Your task to perform on an android device: turn on priority inbox in the gmail app Image 0: 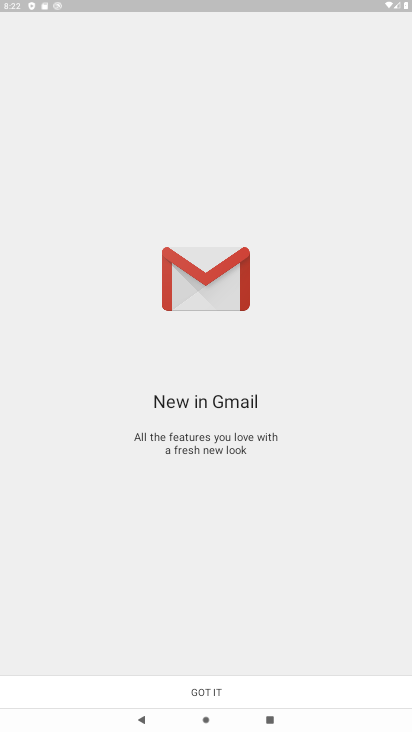
Step 0: press home button
Your task to perform on an android device: turn on priority inbox in the gmail app Image 1: 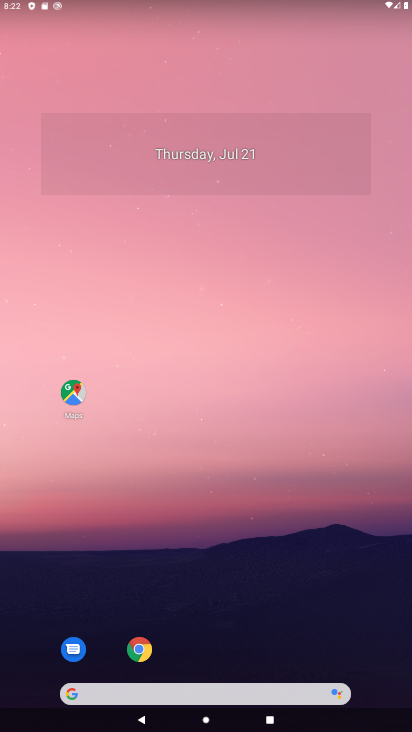
Step 1: drag from (214, 655) to (267, 126)
Your task to perform on an android device: turn on priority inbox in the gmail app Image 2: 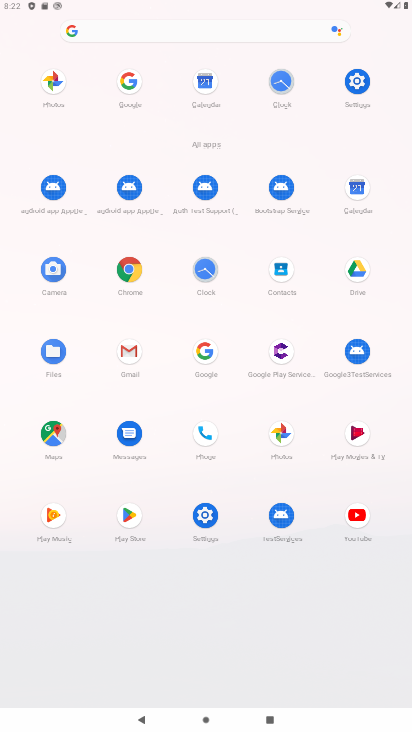
Step 2: click (126, 351)
Your task to perform on an android device: turn on priority inbox in the gmail app Image 3: 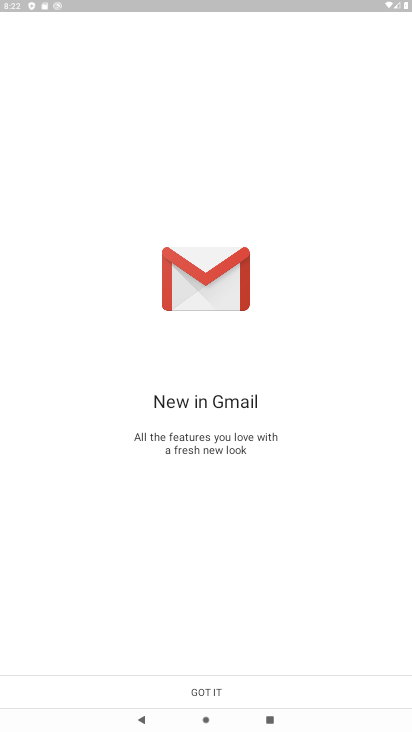
Step 3: click (199, 698)
Your task to perform on an android device: turn on priority inbox in the gmail app Image 4: 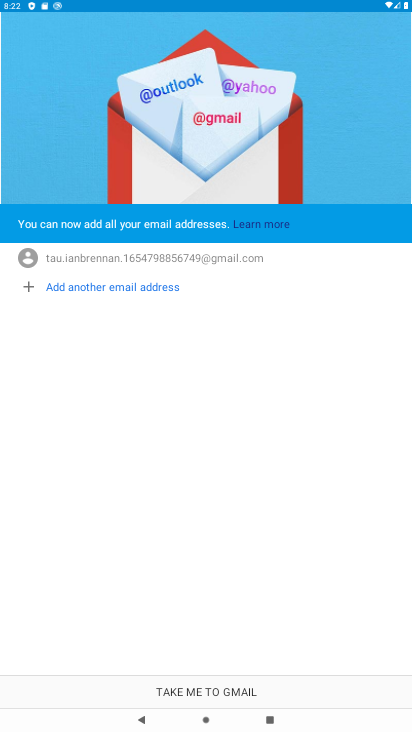
Step 4: click (198, 698)
Your task to perform on an android device: turn on priority inbox in the gmail app Image 5: 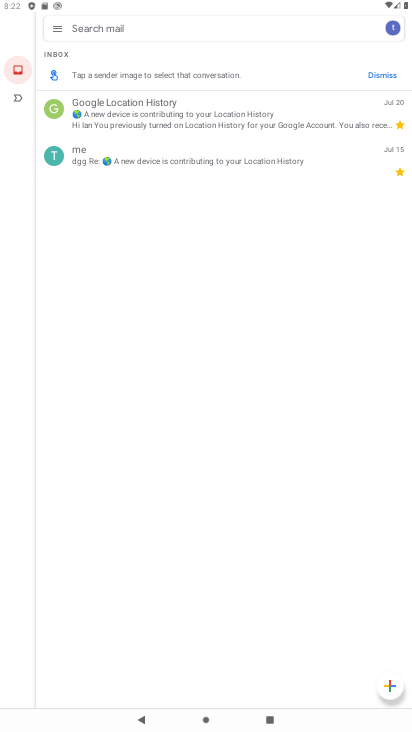
Step 5: click (56, 27)
Your task to perform on an android device: turn on priority inbox in the gmail app Image 6: 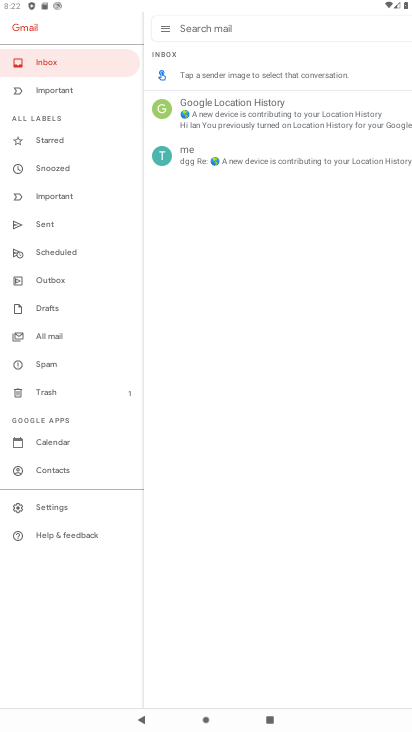
Step 6: click (36, 502)
Your task to perform on an android device: turn on priority inbox in the gmail app Image 7: 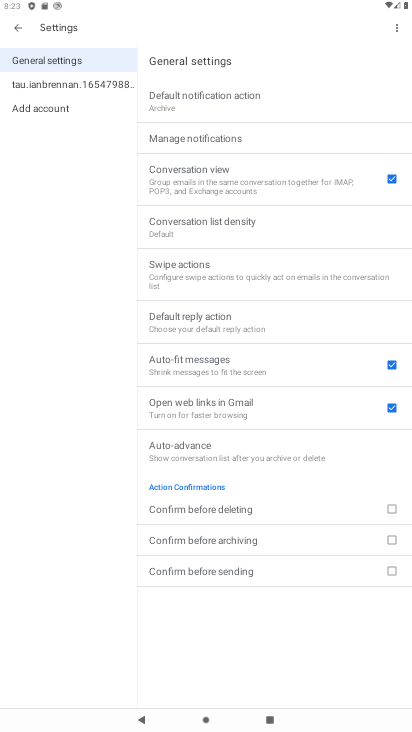
Step 7: click (95, 87)
Your task to perform on an android device: turn on priority inbox in the gmail app Image 8: 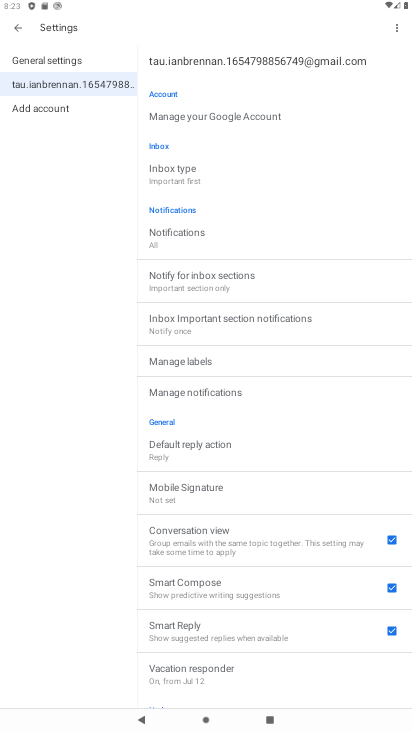
Step 8: click (184, 178)
Your task to perform on an android device: turn on priority inbox in the gmail app Image 9: 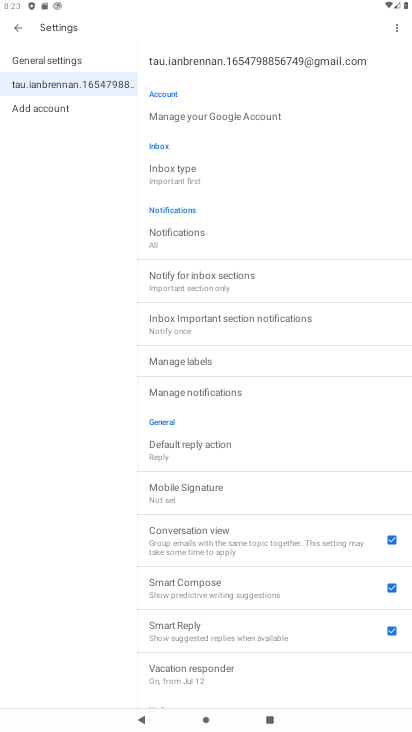
Step 9: click (180, 171)
Your task to perform on an android device: turn on priority inbox in the gmail app Image 10: 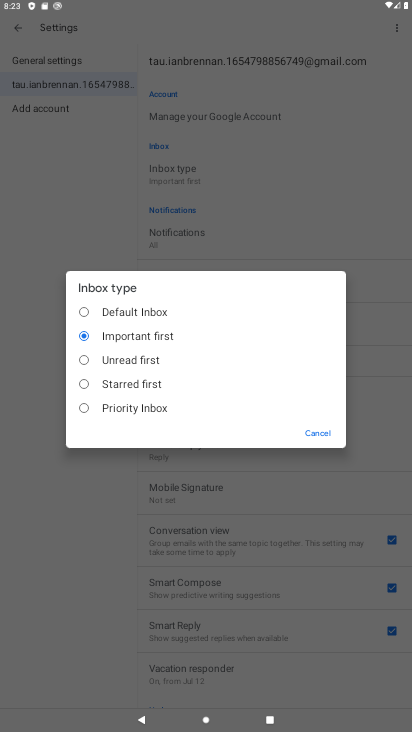
Step 10: click (81, 406)
Your task to perform on an android device: turn on priority inbox in the gmail app Image 11: 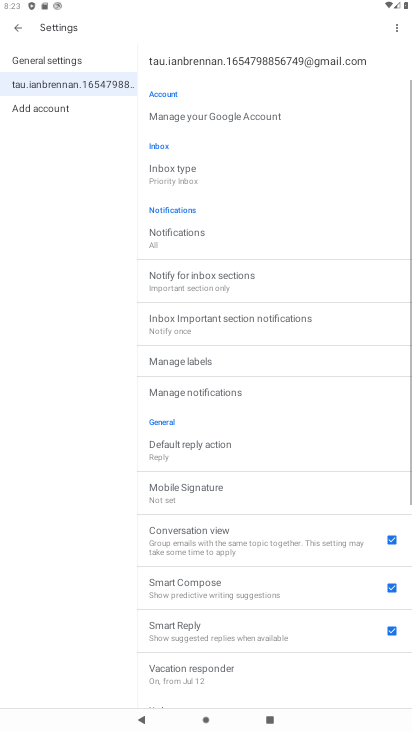
Step 11: task complete